Your task to perform on an android device: Is it going to rain today? Image 0: 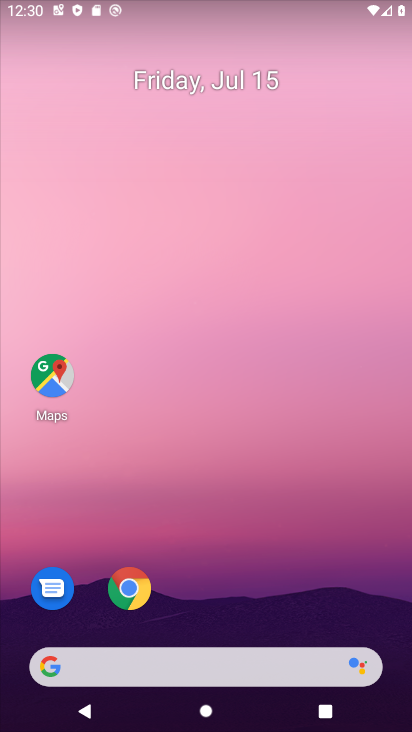
Step 0: click (85, 662)
Your task to perform on an android device: Is it going to rain today? Image 1: 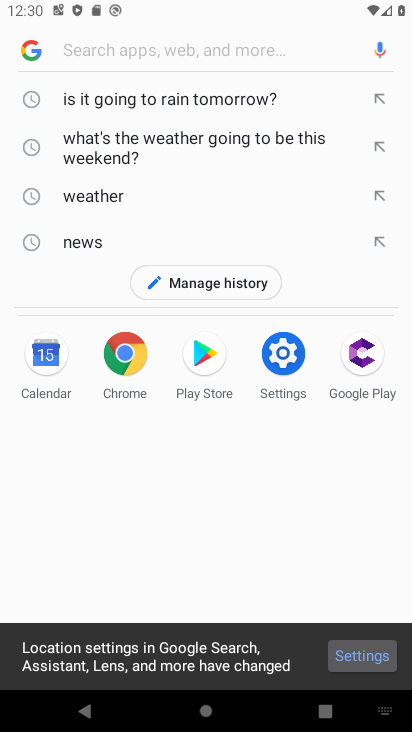
Step 1: type "Is it going to rain today?"
Your task to perform on an android device: Is it going to rain today? Image 2: 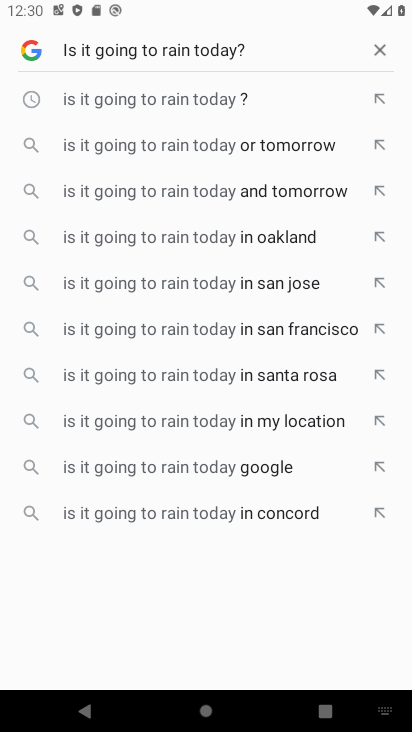
Step 2: click (282, 96)
Your task to perform on an android device: Is it going to rain today? Image 3: 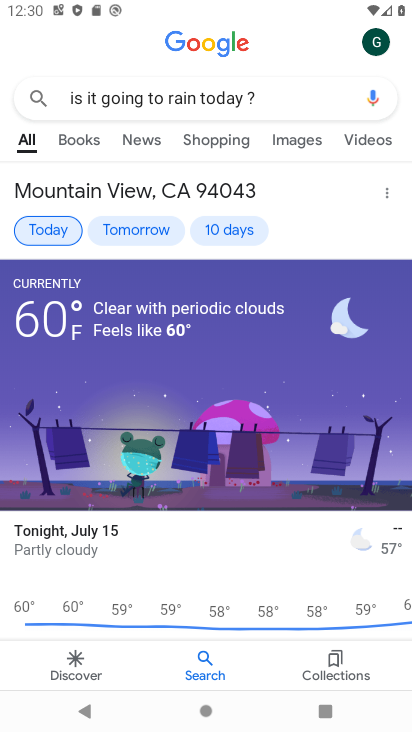
Step 3: task complete